Your task to perform on an android device: open app "DoorDash - Dasher" Image 0: 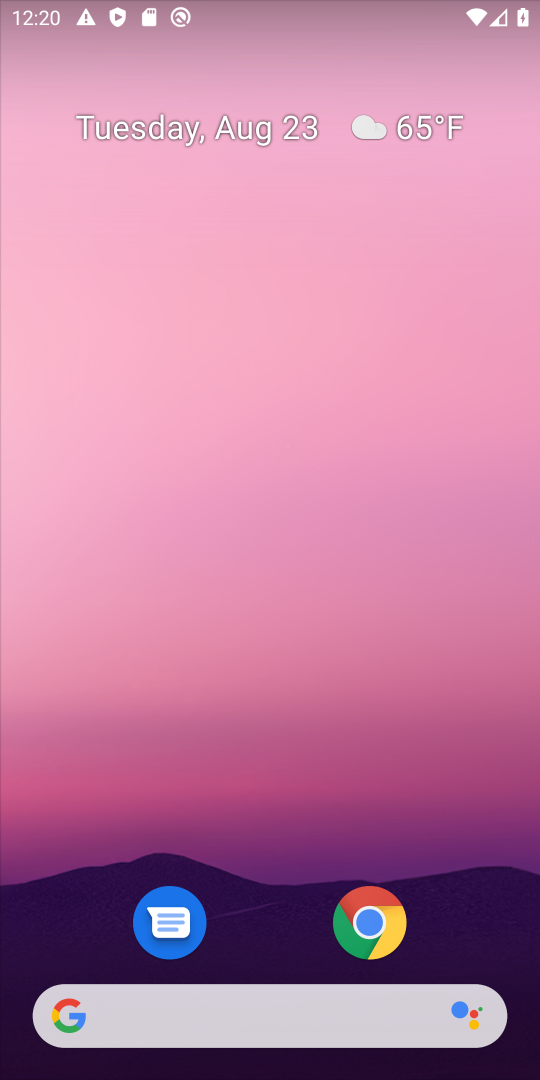
Step 0: drag from (280, 859) to (364, 109)
Your task to perform on an android device: open app "DoorDash - Dasher" Image 1: 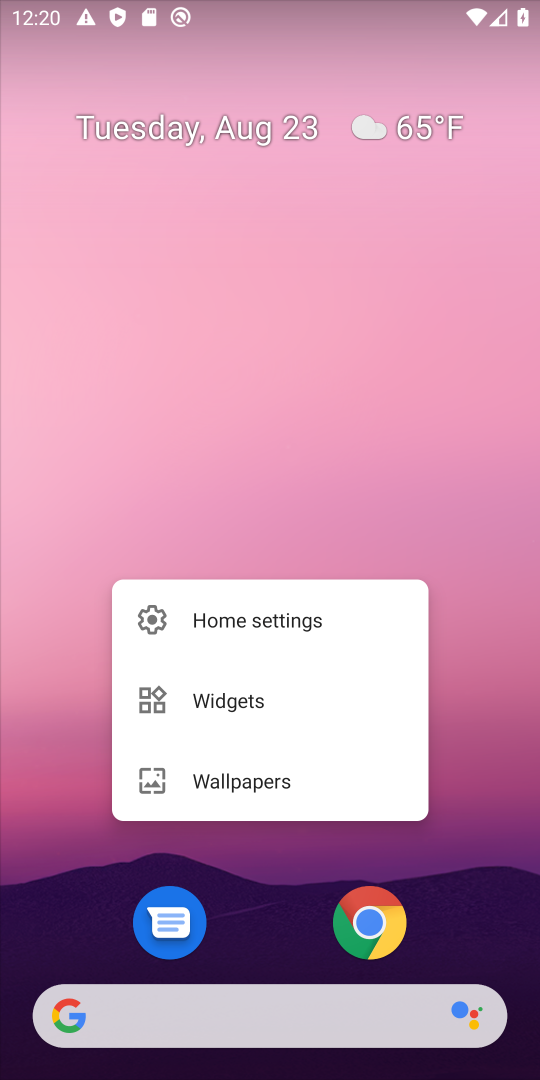
Step 1: click (377, 521)
Your task to perform on an android device: open app "DoorDash - Dasher" Image 2: 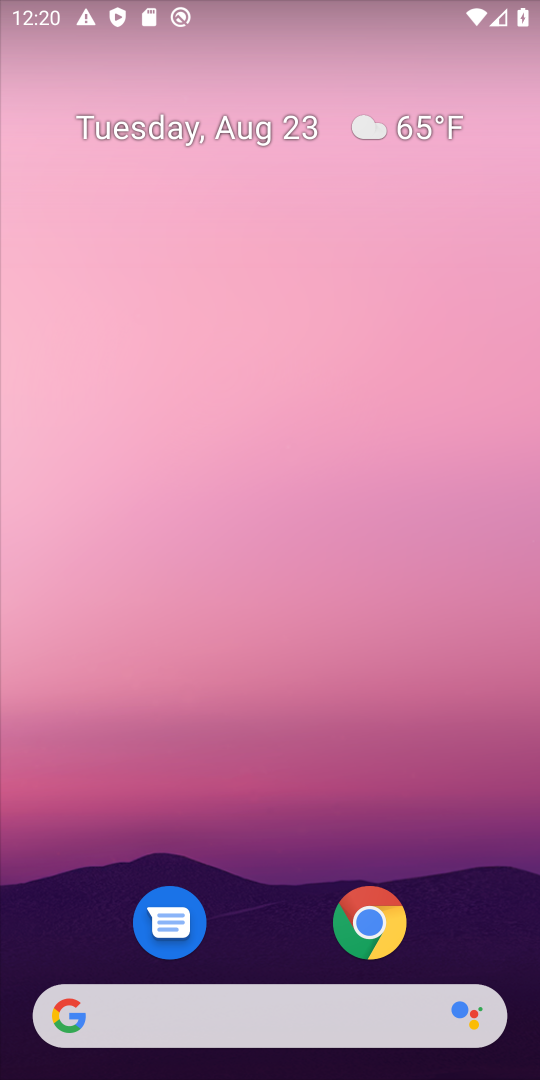
Step 2: drag from (267, 961) to (346, 141)
Your task to perform on an android device: open app "DoorDash - Dasher" Image 3: 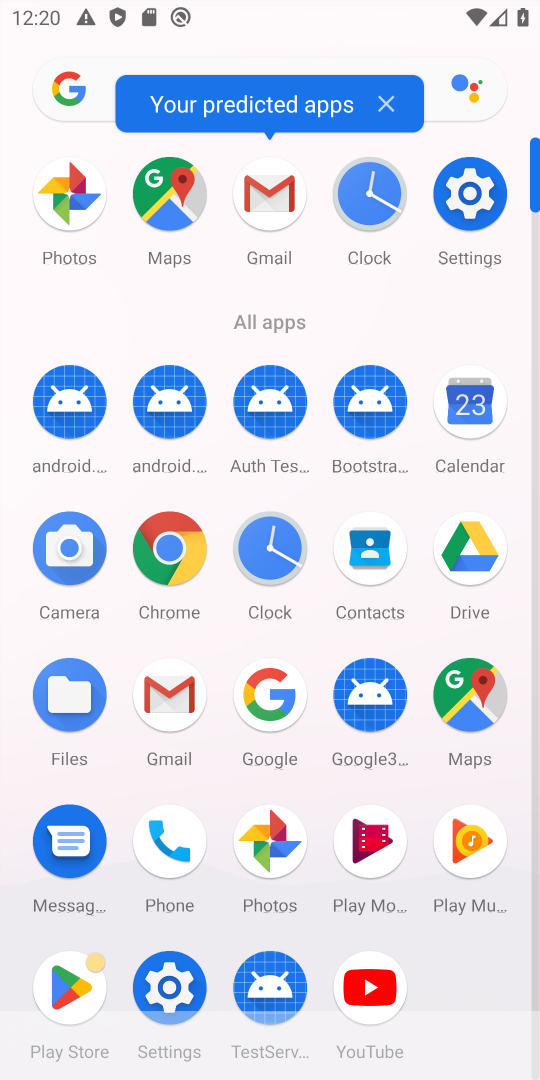
Step 3: click (67, 955)
Your task to perform on an android device: open app "DoorDash - Dasher" Image 4: 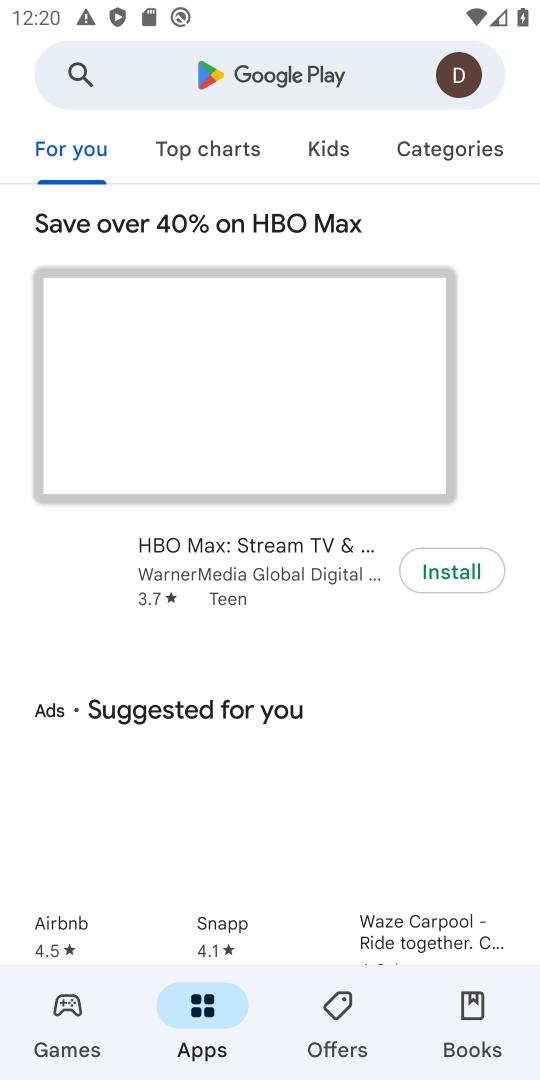
Step 4: click (270, 89)
Your task to perform on an android device: open app "DoorDash - Dasher" Image 5: 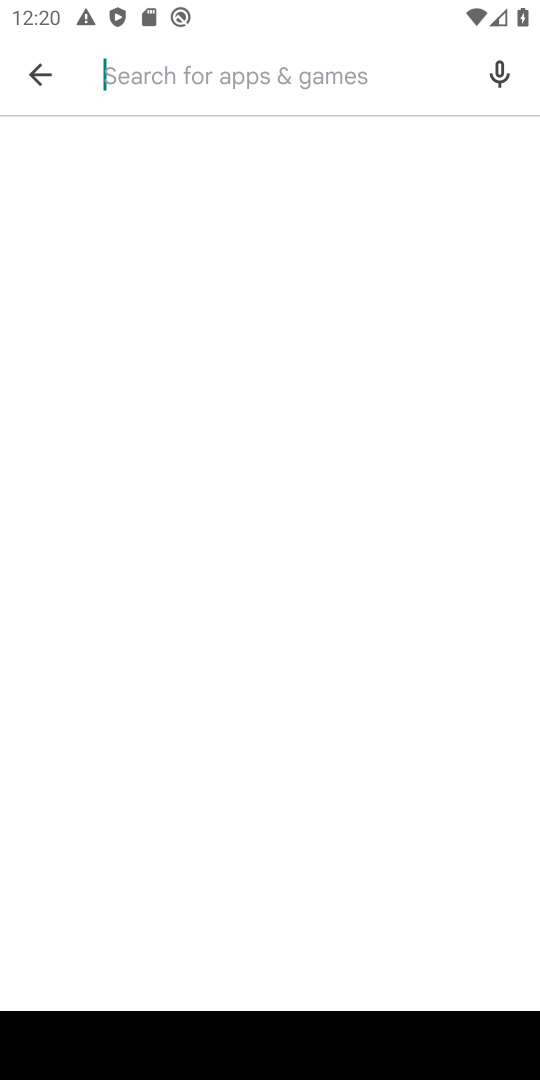
Step 5: type "doordash dasher"
Your task to perform on an android device: open app "DoorDash - Dasher" Image 6: 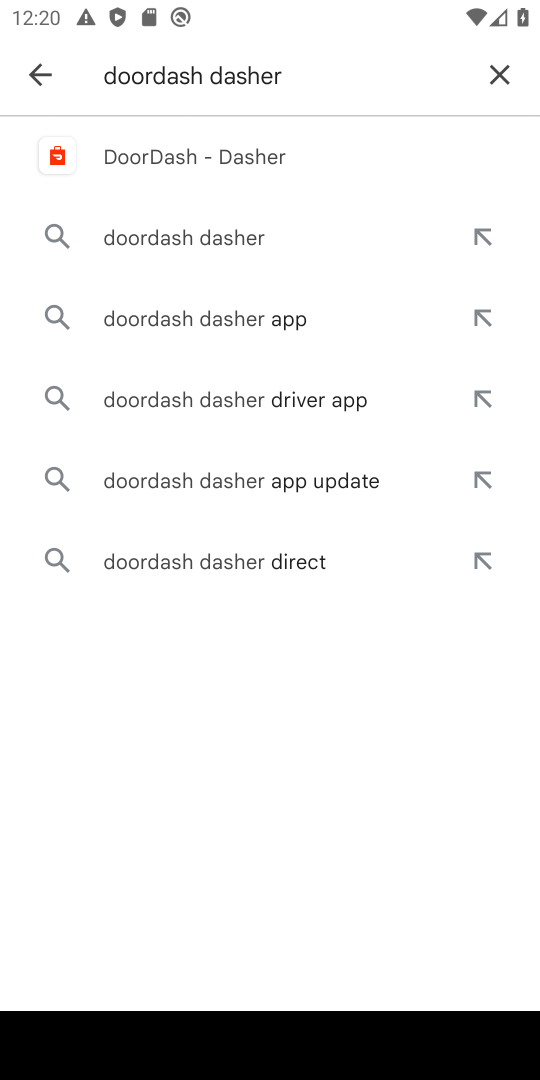
Step 6: click (215, 173)
Your task to perform on an android device: open app "DoorDash - Dasher" Image 7: 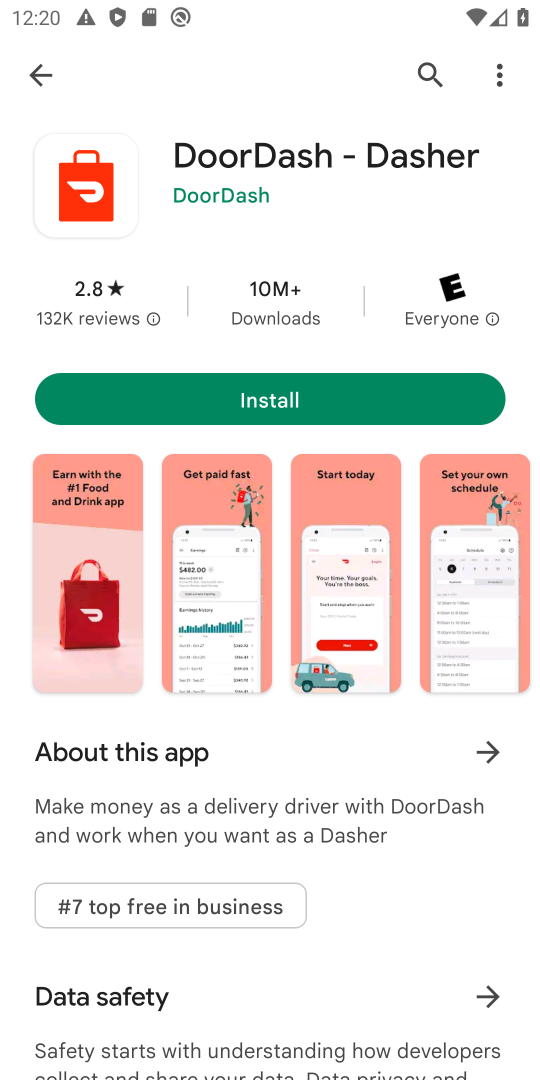
Step 7: task complete